Your task to perform on an android device: Open Youtube and go to the subscriptions tab Image 0: 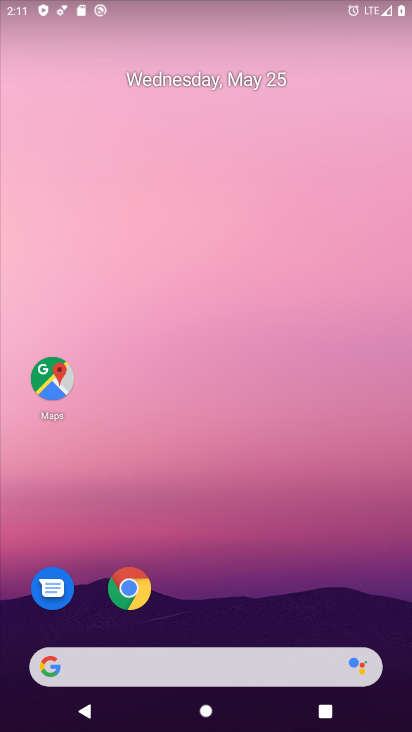
Step 0: drag from (228, 586) to (206, 28)
Your task to perform on an android device: Open Youtube and go to the subscriptions tab Image 1: 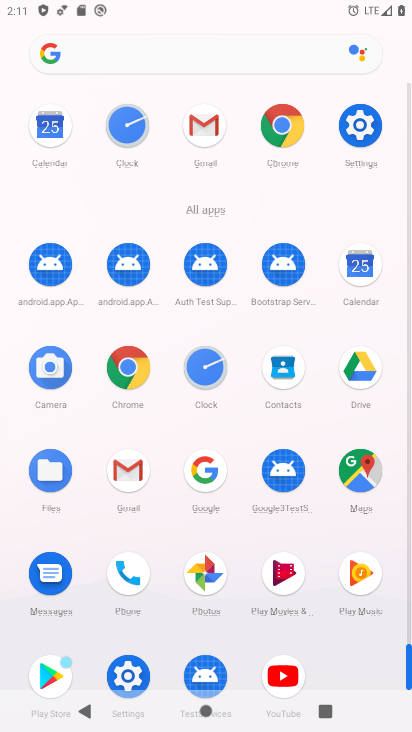
Step 1: drag from (14, 529) to (30, 353)
Your task to perform on an android device: Open Youtube and go to the subscriptions tab Image 2: 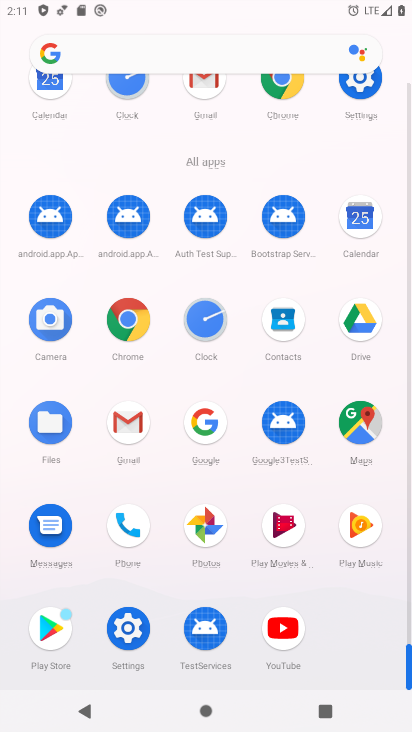
Step 2: click (288, 627)
Your task to perform on an android device: Open Youtube and go to the subscriptions tab Image 3: 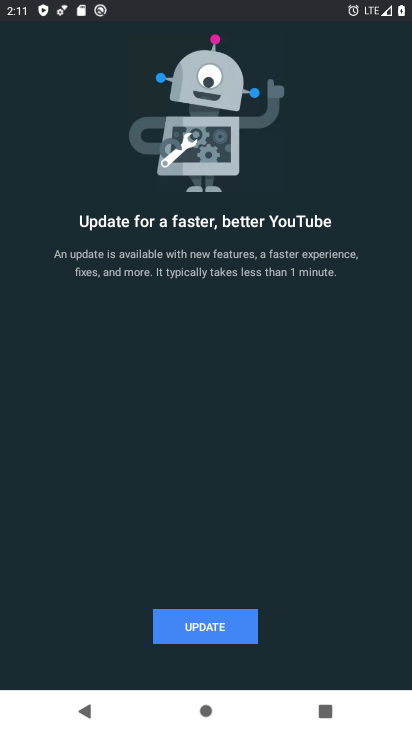
Step 3: click (204, 622)
Your task to perform on an android device: Open Youtube and go to the subscriptions tab Image 4: 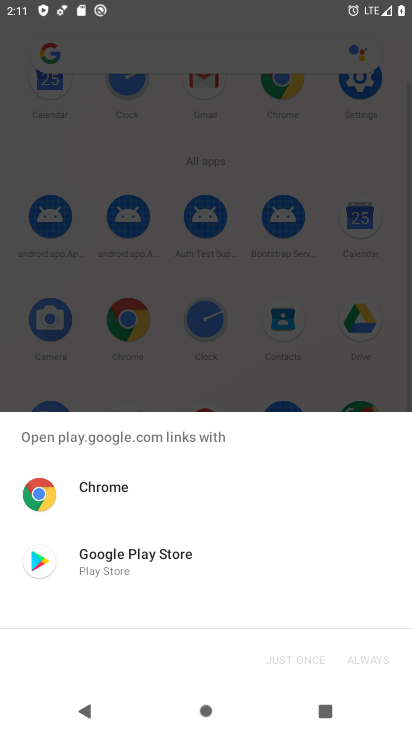
Step 4: click (120, 560)
Your task to perform on an android device: Open Youtube and go to the subscriptions tab Image 5: 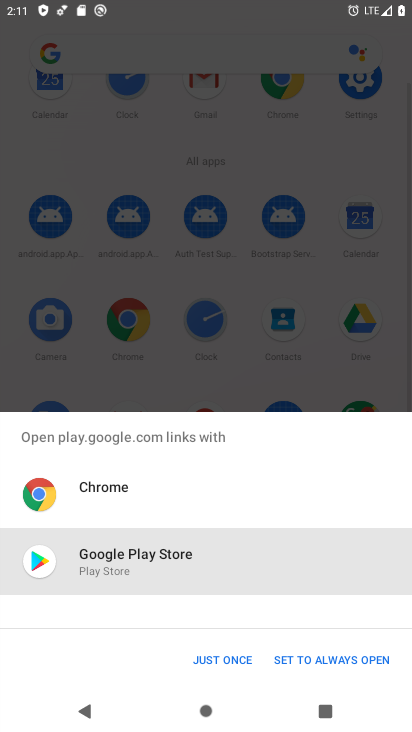
Step 5: click (213, 660)
Your task to perform on an android device: Open Youtube and go to the subscriptions tab Image 6: 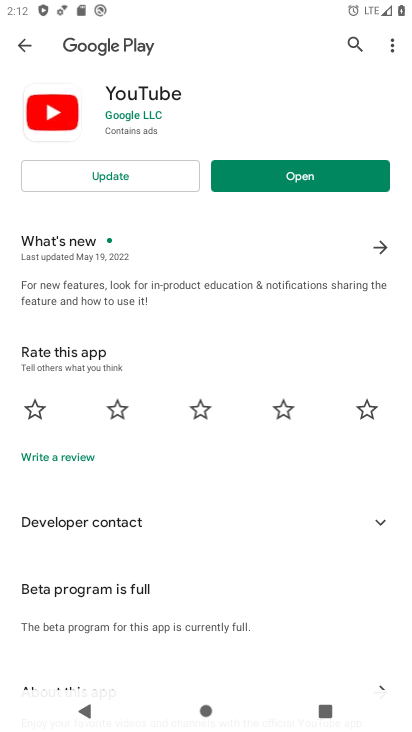
Step 6: click (118, 178)
Your task to perform on an android device: Open Youtube and go to the subscriptions tab Image 7: 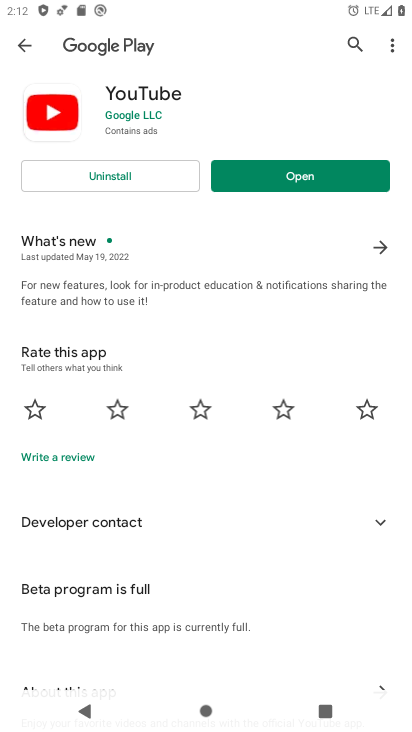
Step 7: click (302, 177)
Your task to perform on an android device: Open Youtube and go to the subscriptions tab Image 8: 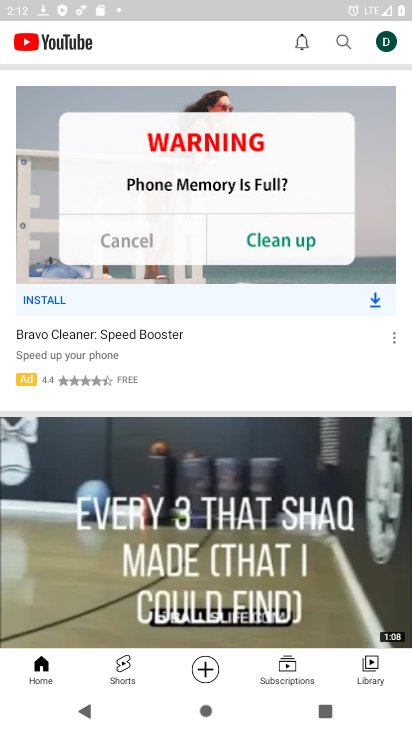
Step 8: click (273, 680)
Your task to perform on an android device: Open Youtube and go to the subscriptions tab Image 9: 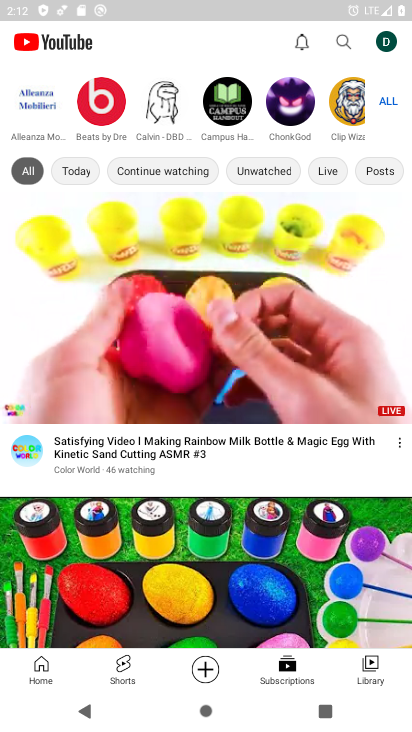
Step 9: task complete